Your task to perform on an android device: check battery use Image 0: 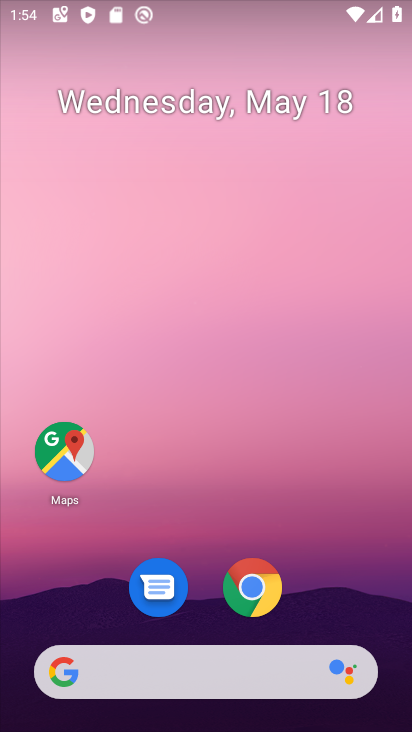
Step 0: drag from (354, 633) to (334, 51)
Your task to perform on an android device: check battery use Image 1: 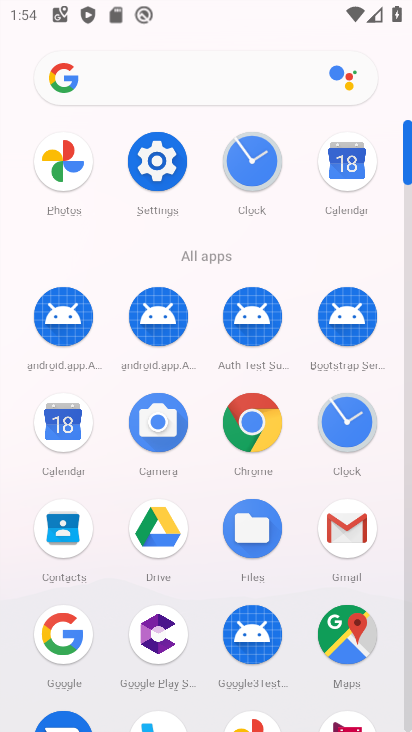
Step 1: click (169, 174)
Your task to perform on an android device: check battery use Image 2: 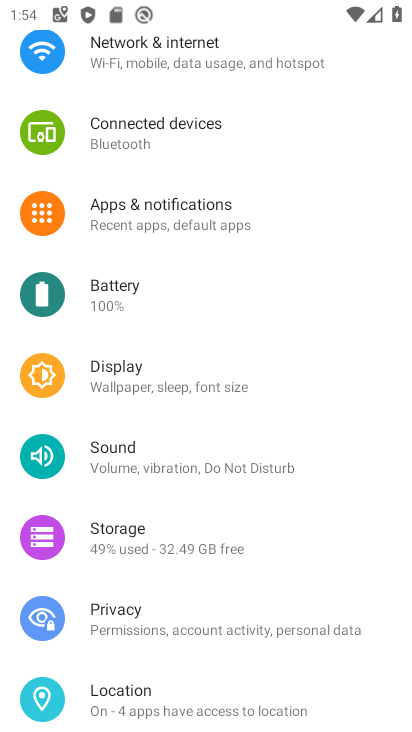
Step 2: click (98, 305)
Your task to perform on an android device: check battery use Image 3: 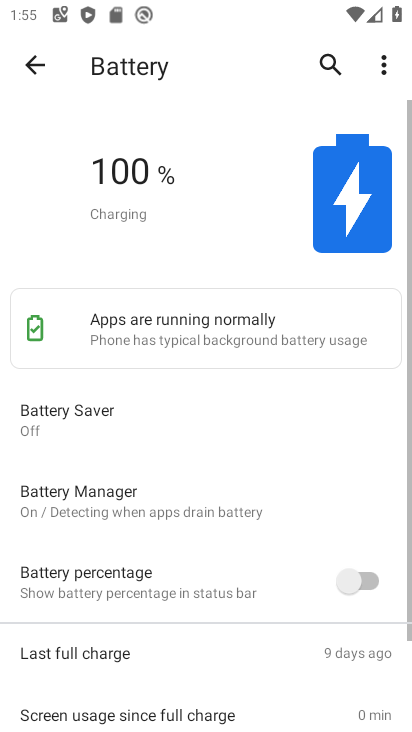
Step 3: click (385, 66)
Your task to perform on an android device: check battery use Image 4: 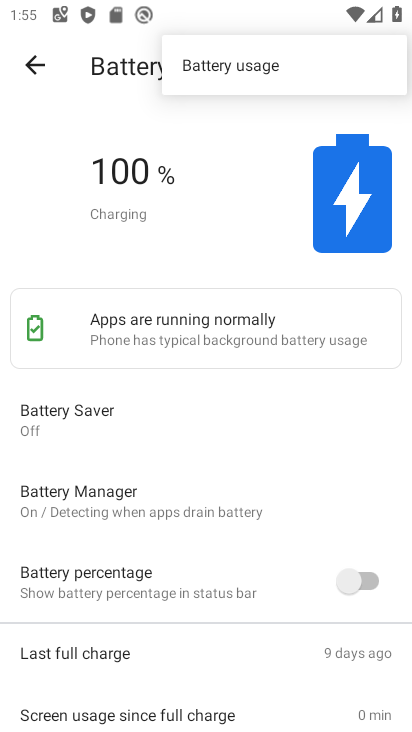
Step 4: click (239, 74)
Your task to perform on an android device: check battery use Image 5: 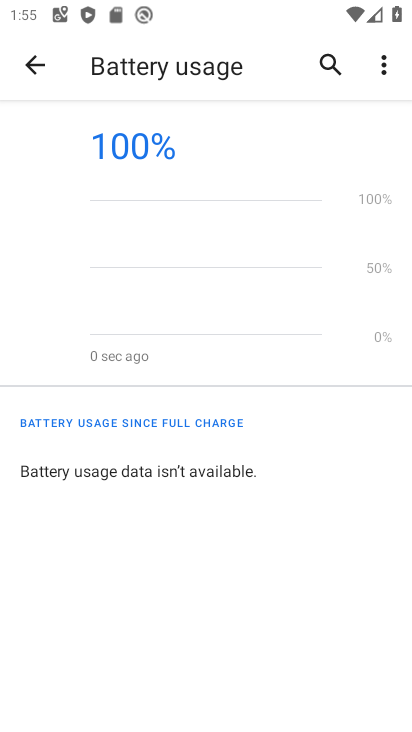
Step 5: task complete